Your task to perform on an android device: toggle show notifications on the lock screen Image 0: 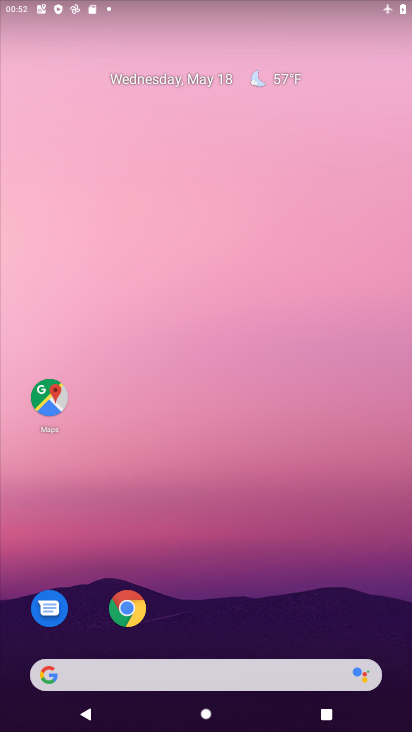
Step 0: drag from (224, 592) to (155, 258)
Your task to perform on an android device: toggle show notifications on the lock screen Image 1: 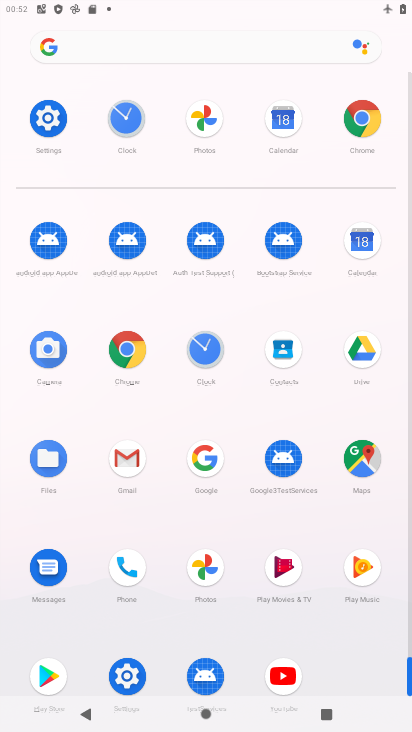
Step 1: click (130, 660)
Your task to perform on an android device: toggle show notifications on the lock screen Image 2: 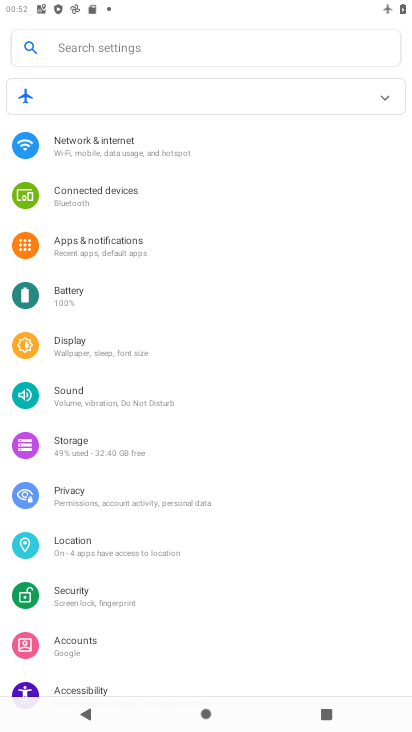
Step 2: click (99, 232)
Your task to perform on an android device: toggle show notifications on the lock screen Image 3: 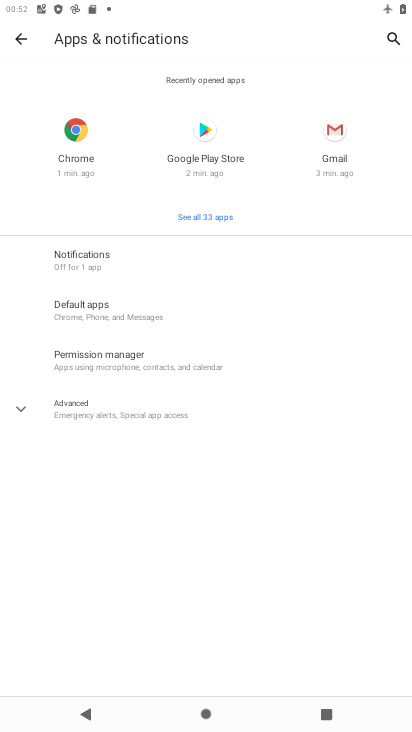
Step 3: click (85, 261)
Your task to perform on an android device: toggle show notifications on the lock screen Image 4: 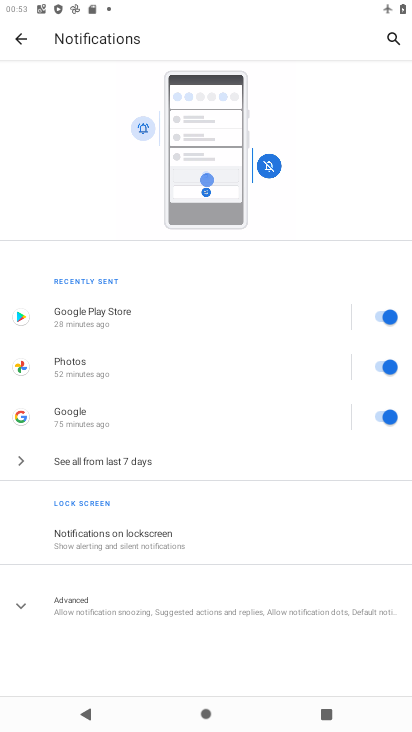
Step 4: click (148, 528)
Your task to perform on an android device: toggle show notifications on the lock screen Image 5: 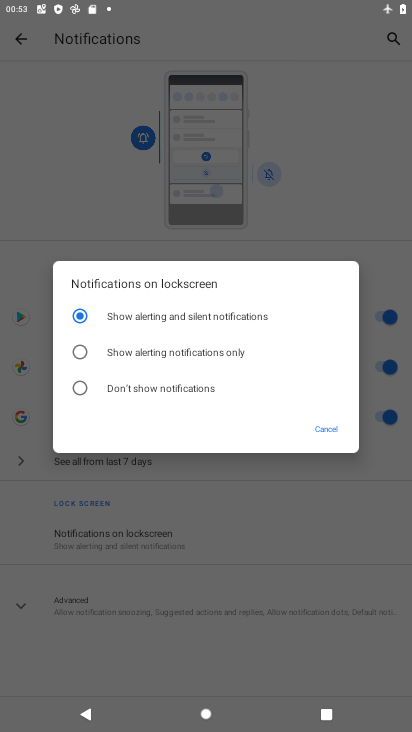
Step 5: click (75, 386)
Your task to perform on an android device: toggle show notifications on the lock screen Image 6: 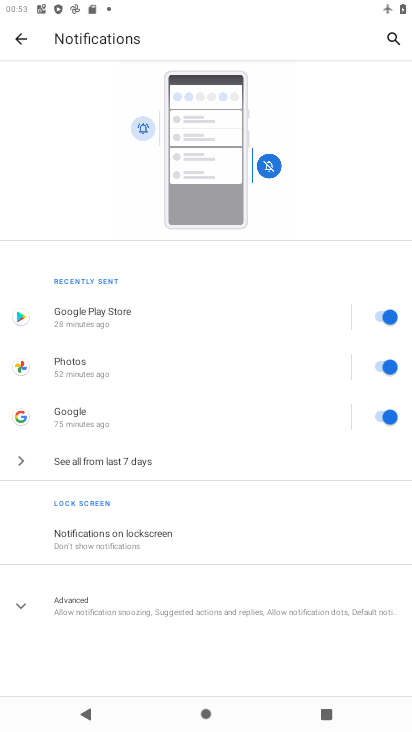
Step 6: task complete